Your task to perform on an android device: delete the emails in spam in the gmail app Image 0: 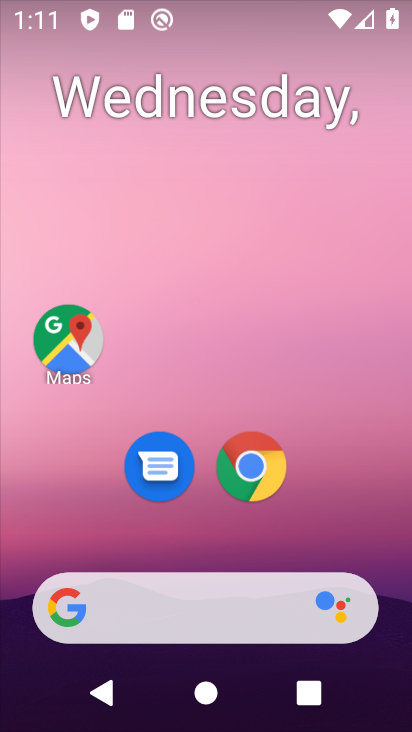
Step 0: press home button
Your task to perform on an android device: delete the emails in spam in the gmail app Image 1: 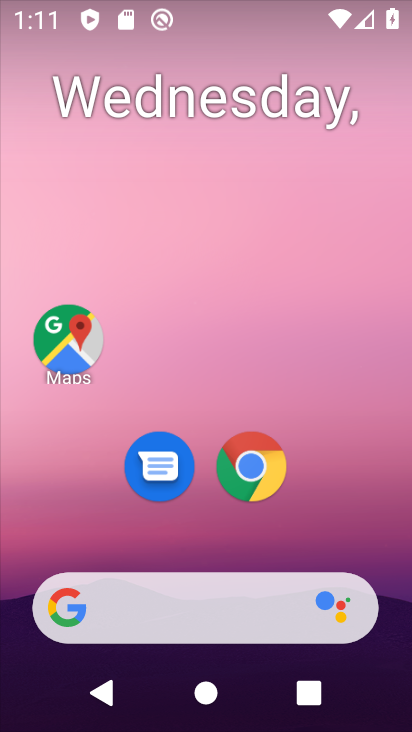
Step 1: drag from (370, 486) to (355, 29)
Your task to perform on an android device: delete the emails in spam in the gmail app Image 2: 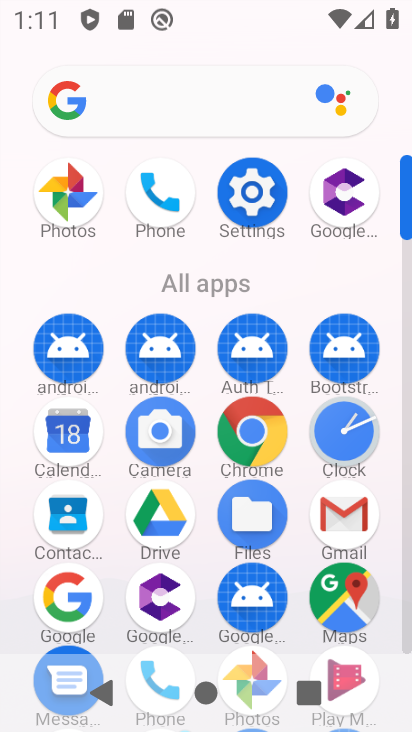
Step 2: drag from (407, 206) to (396, 272)
Your task to perform on an android device: delete the emails in spam in the gmail app Image 3: 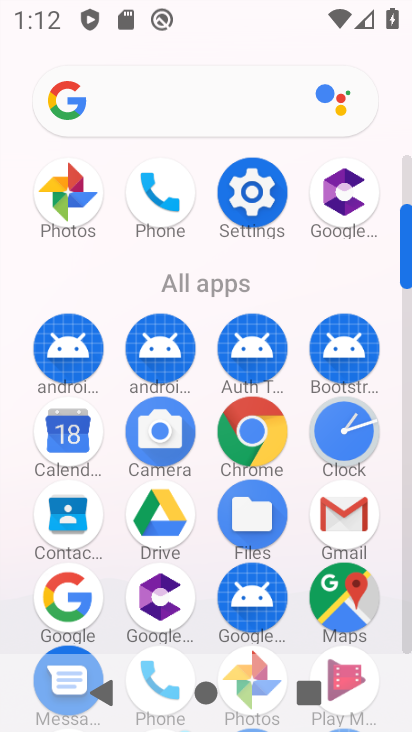
Step 3: click (346, 520)
Your task to perform on an android device: delete the emails in spam in the gmail app Image 4: 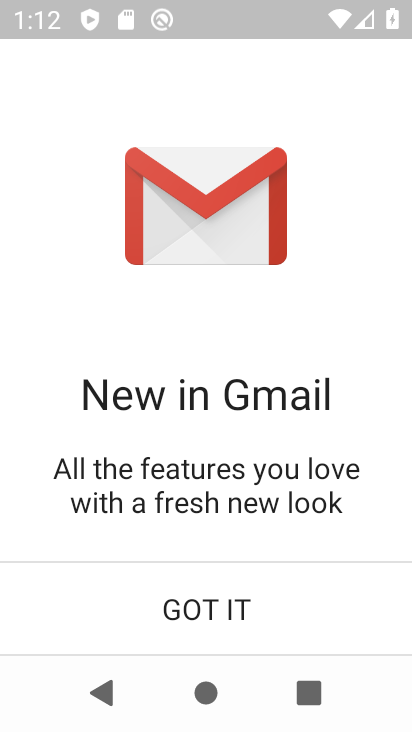
Step 4: click (182, 613)
Your task to perform on an android device: delete the emails in spam in the gmail app Image 5: 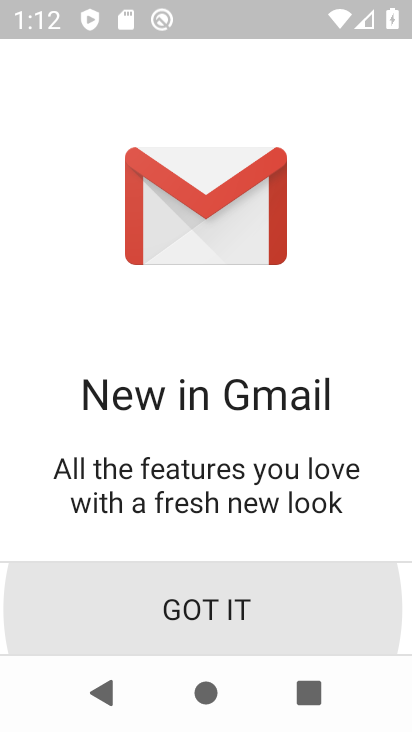
Step 5: click (182, 613)
Your task to perform on an android device: delete the emails in spam in the gmail app Image 6: 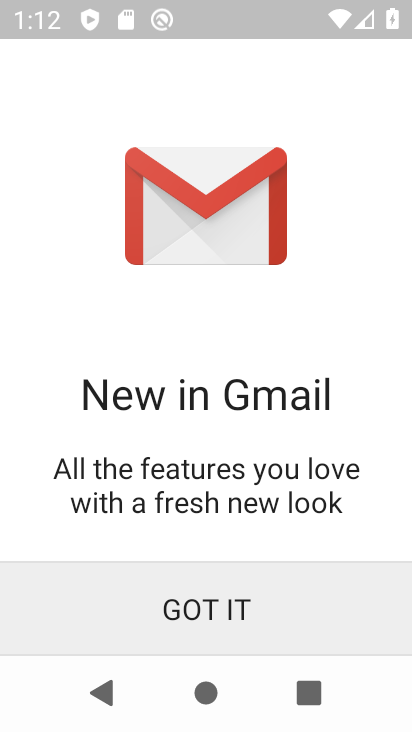
Step 6: click (182, 613)
Your task to perform on an android device: delete the emails in spam in the gmail app Image 7: 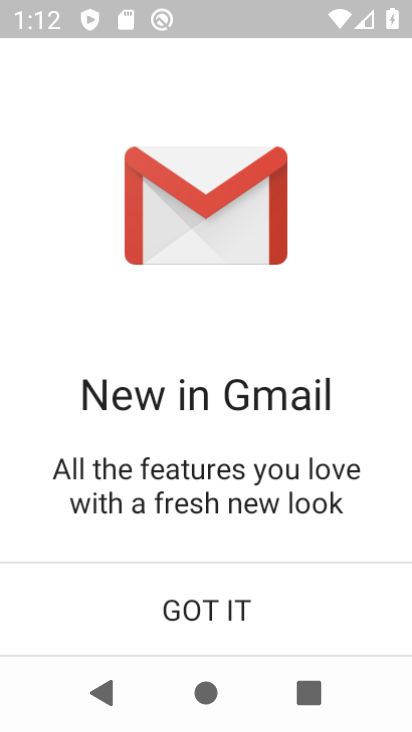
Step 7: click (182, 613)
Your task to perform on an android device: delete the emails in spam in the gmail app Image 8: 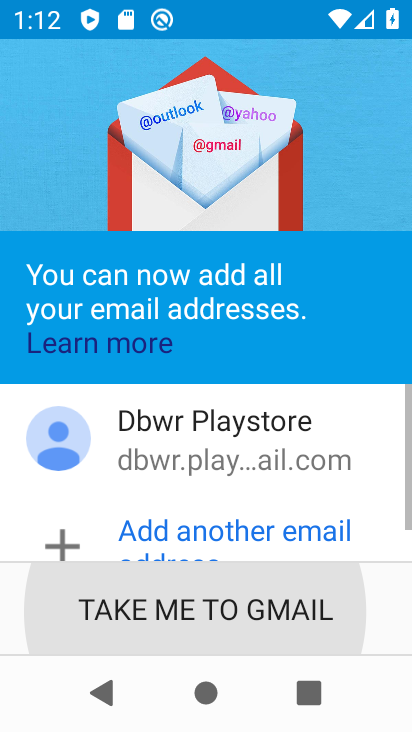
Step 8: click (182, 613)
Your task to perform on an android device: delete the emails in spam in the gmail app Image 9: 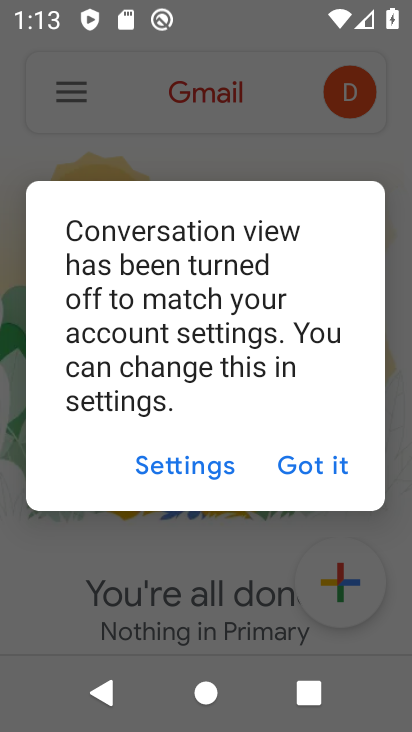
Step 9: click (304, 454)
Your task to perform on an android device: delete the emails in spam in the gmail app Image 10: 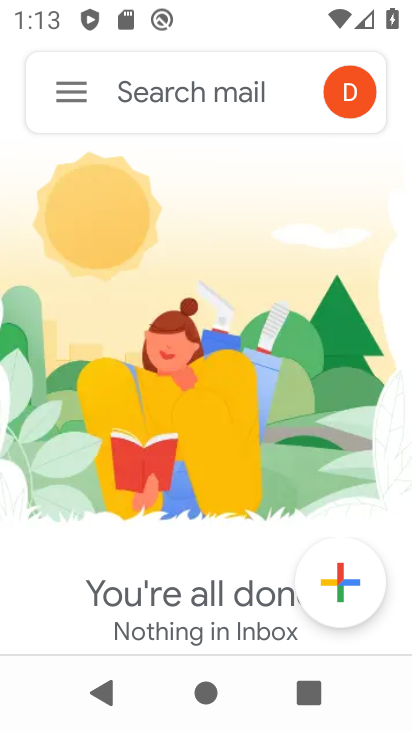
Step 10: click (77, 87)
Your task to perform on an android device: delete the emails in spam in the gmail app Image 11: 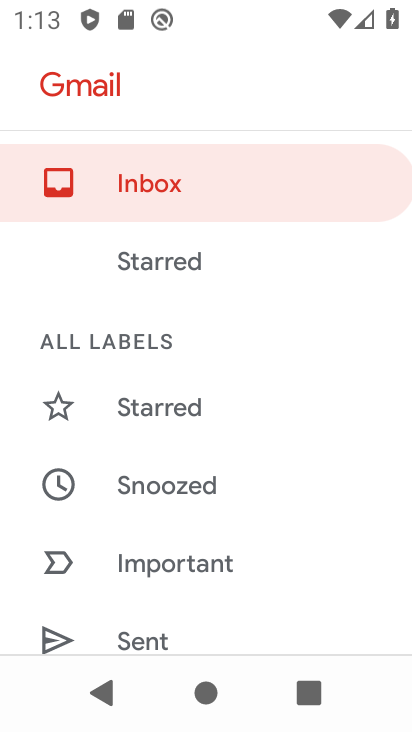
Step 11: task complete